Your task to perform on an android device: turn off smart reply in the gmail app Image 0: 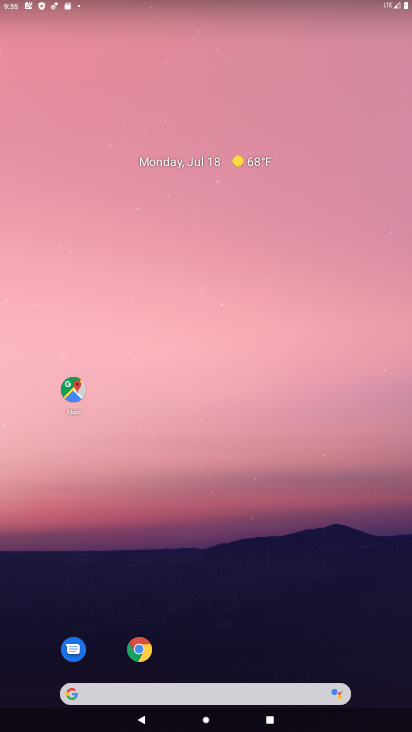
Step 0: drag from (241, 720) to (232, 96)
Your task to perform on an android device: turn off smart reply in the gmail app Image 1: 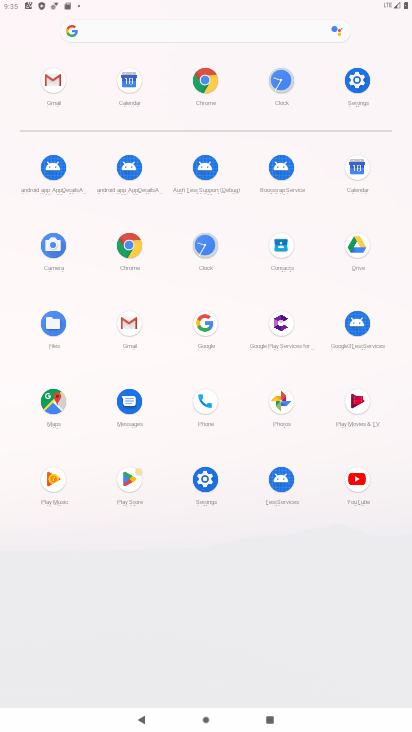
Step 1: click (53, 69)
Your task to perform on an android device: turn off smart reply in the gmail app Image 2: 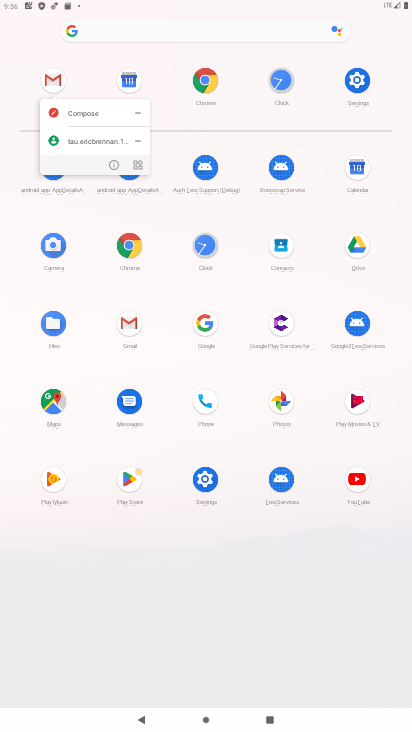
Step 2: click (53, 69)
Your task to perform on an android device: turn off smart reply in the gmail app Image 3: 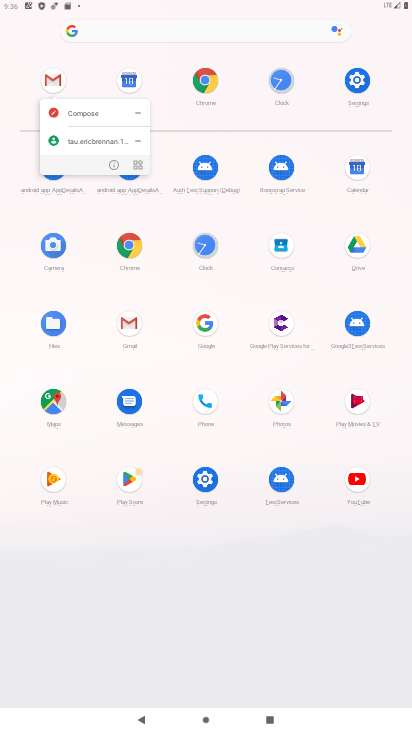
Step 3: click (53, 69)
Your task to perform on an android device: turn off smart reply in the gmail app Image 4: 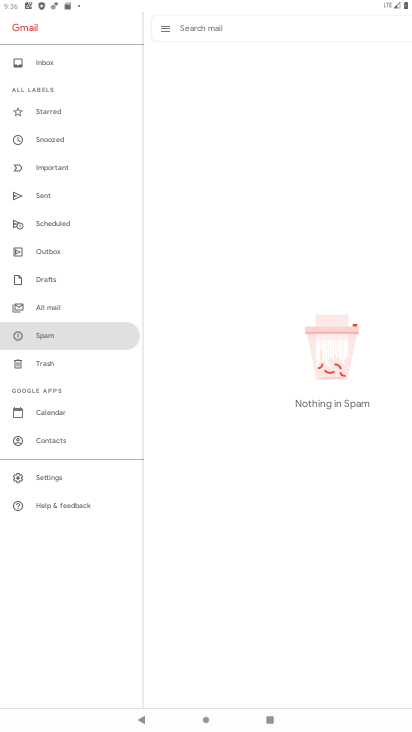
Step 4: click (76, 479)
Your task to perform on an android device: turn off smart reply in the gmail app Image 5: 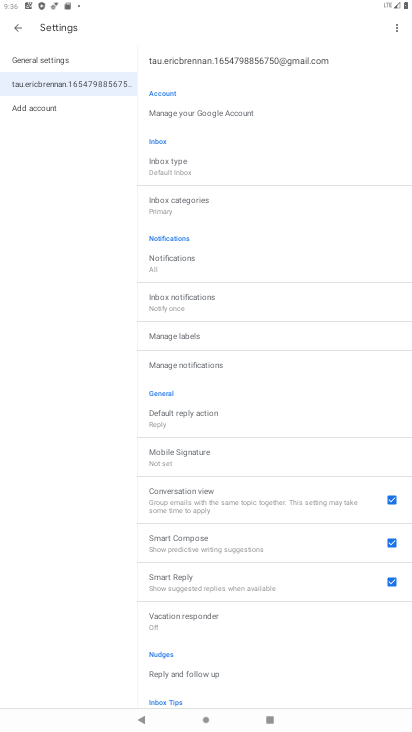
Step 5: click (390, 580)
Your task to perform on an android device: turn off smart reply in the gmail app Image 6: 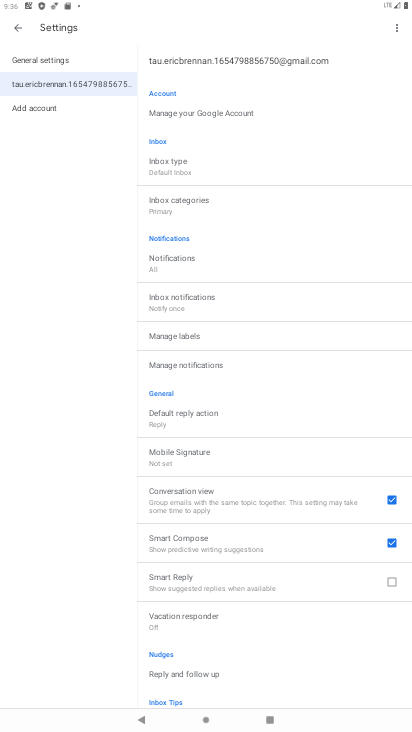
Step 6: task complete